Your task to perform on an android device: turn on location history Image 0: 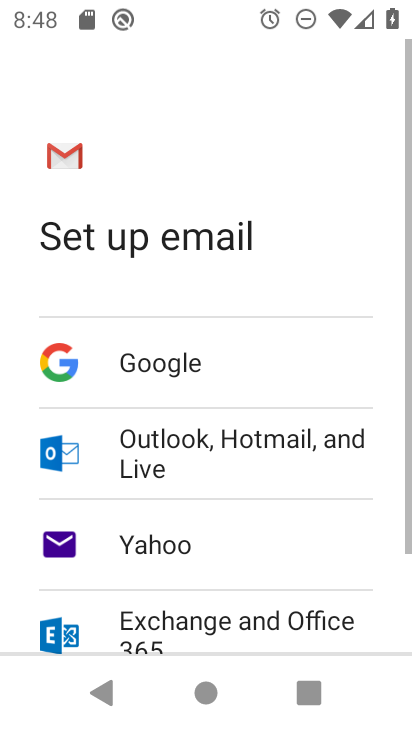
Step 0: press enter
Your task to perform on an android device: turn on location history Image 1: 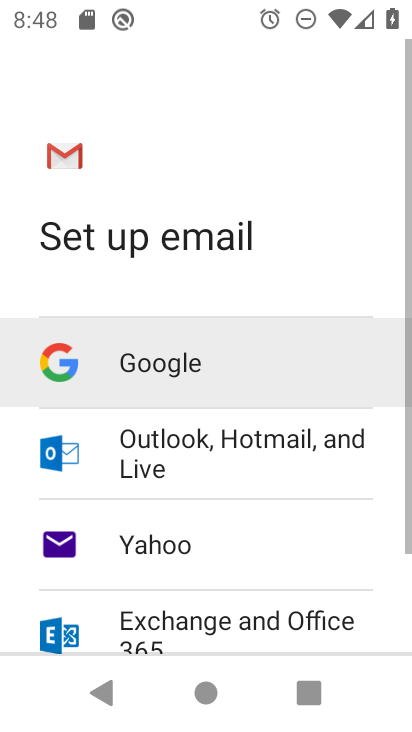
Step 1: press home button
Your task to perform on an android device: turn on location history Image 2: 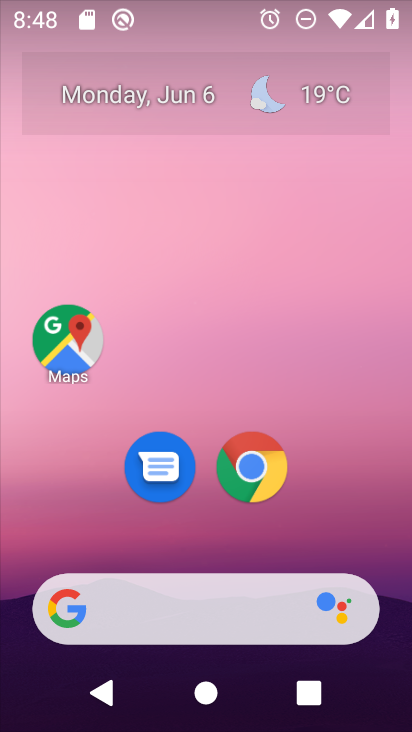
Step 2: drag from (352, 512) to (358, 115)
Your task to perform on an android device: turn on location history Image 3: 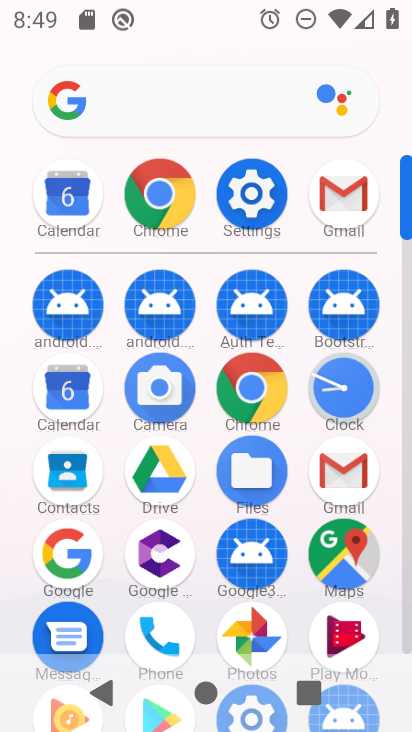
Step 3: click (257, 206)
Your task to perform on an android device: turn on location history Image 4: 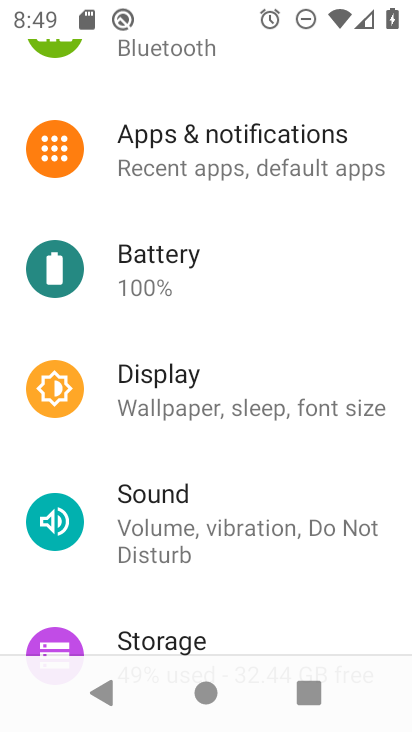
Step 4: drag from (353, 339) to (378, 431)
Your task to perform on an android device: turn on location history Image 5: 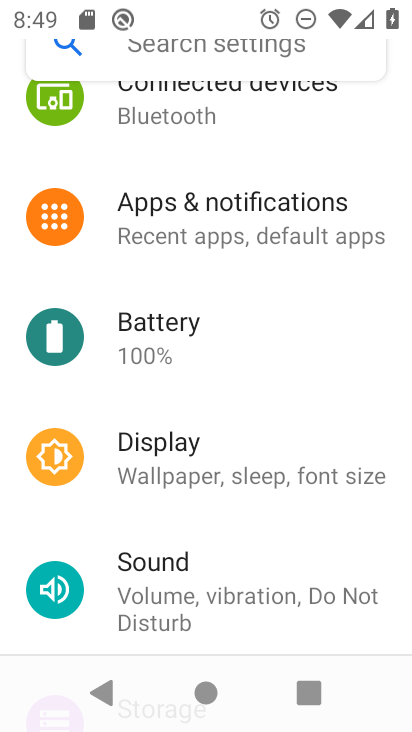
Step 5: drag from (366, 169) to (366, 335)
Your task to perform on an android device: turn on location history Image 6: 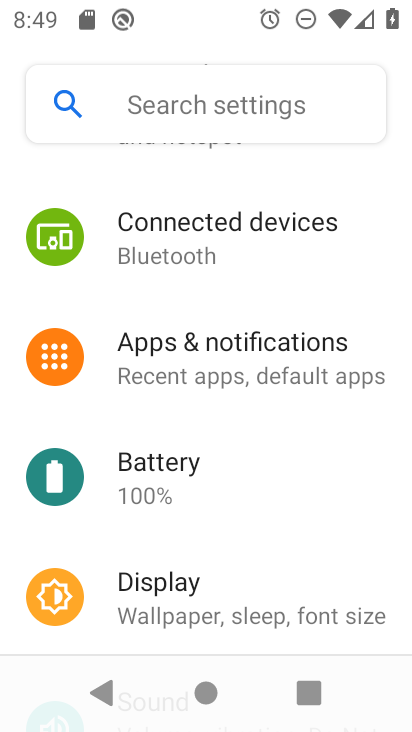
Step 6: drag from (367, 185) to (362, 354)
Your task to perform on an android device: turn on location history Image 7: 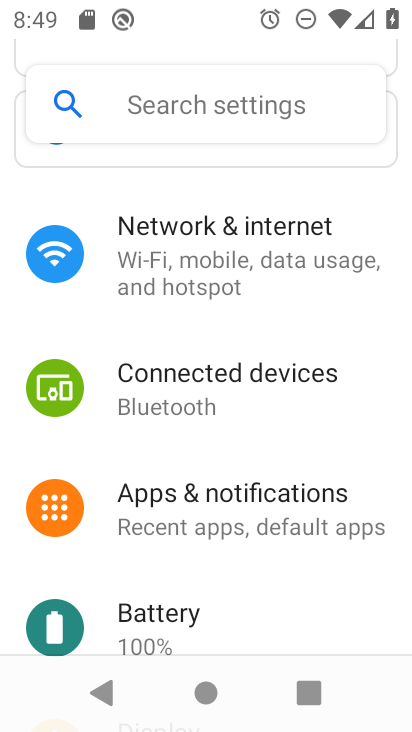
Step 7: drag from (362, 412) to (373, 286)
Your task to perform on an android device: turn on location history Image 8: 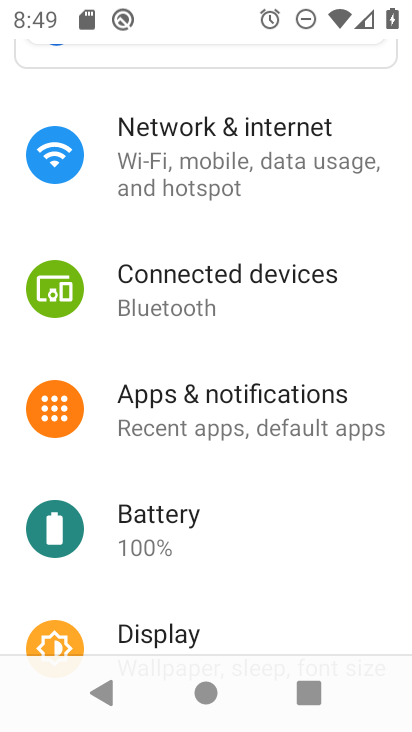
Step 8: drag from (353, 497) to (371, 341)
Your task to perform on an android device: turn on location history Image 9: 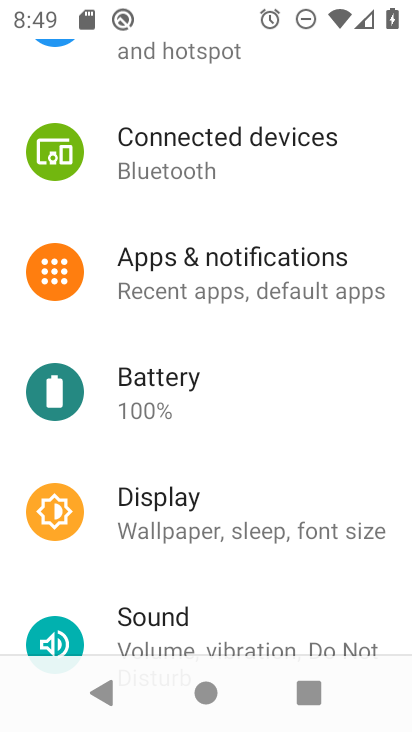
Step 9: drag from (361, 492) to (368, 348)
Your task to perform on an android device: turn on location history Image 10: 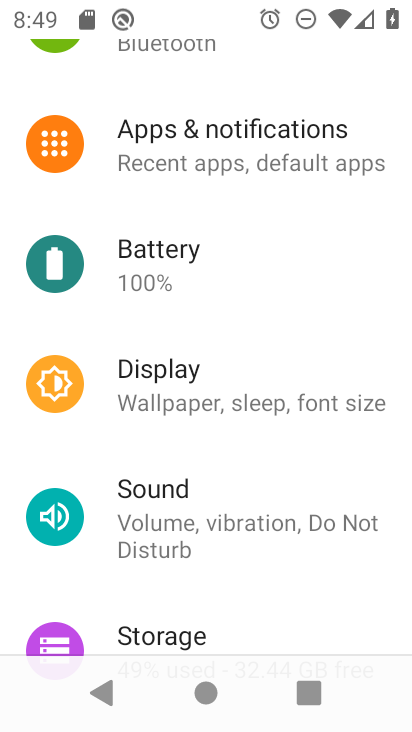
Step 10: drag from (355, 569) to (366, 409)
Your task to perform on an android device: turn on location history Image 11: 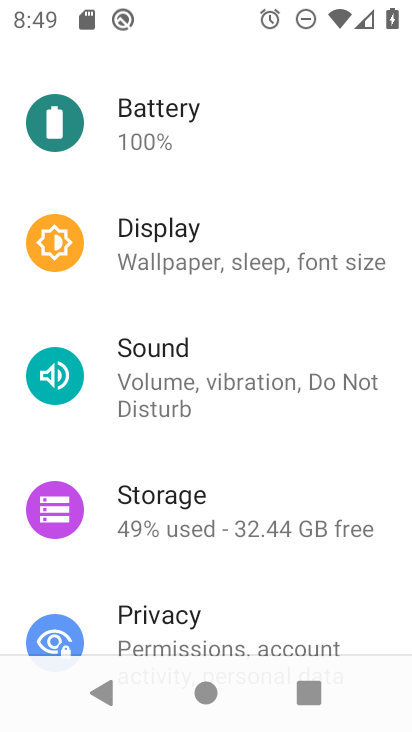
Step 11: drag from (357, 588) to (348, 283)
Your task to perform on an android device: turn on location history Image 12: 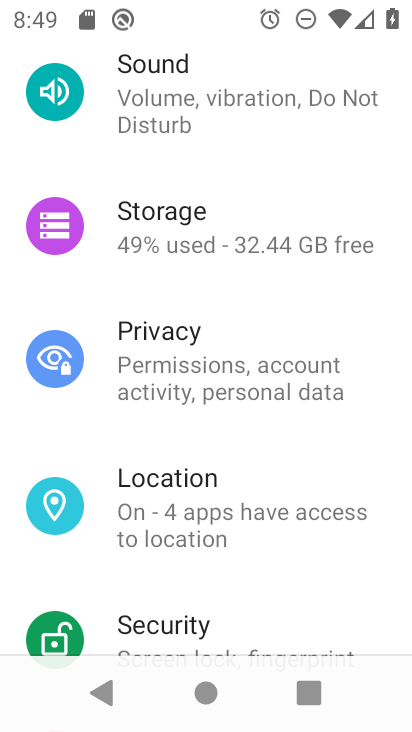
Step 12: click (278, 494)
Your task to perform on an android device: turn on location history Image 13: 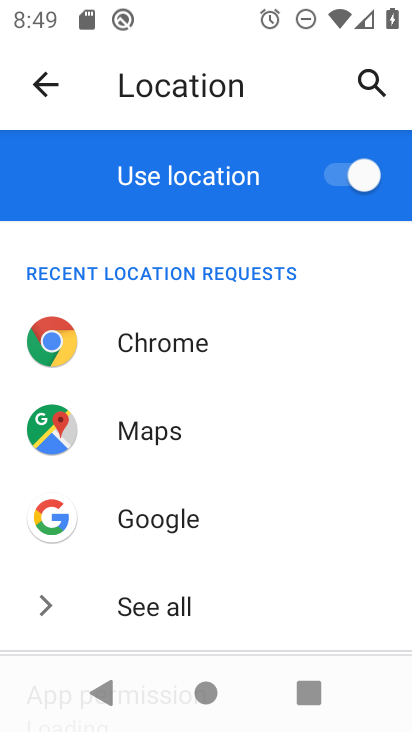
Step 13: drag from (293, 537) to (286, 388)
Your task to perform on an android device: turn on location history Image 14: 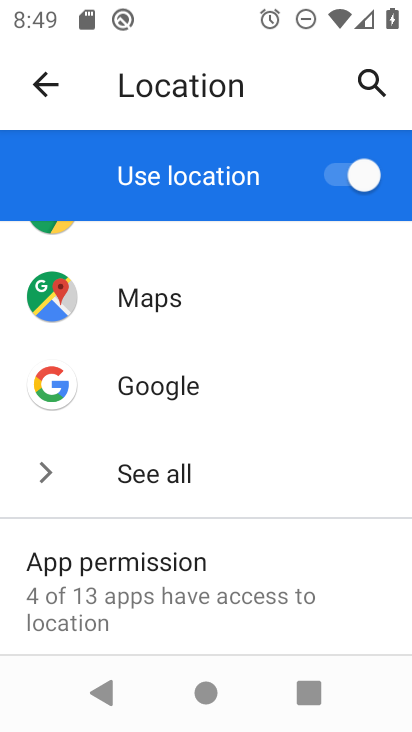
Step 14: drag from (327, 573) to (332, 357)
Your task to perform on an android device: turn on location history Image 15: 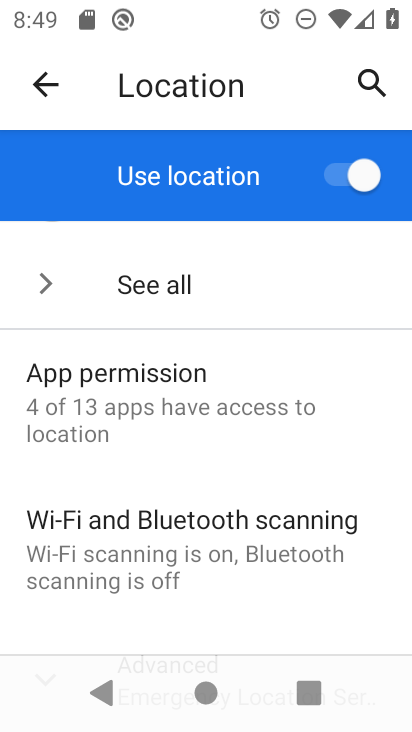
Step 15: drag from (350, 596) to (354, 351)
Your task to perform on an android device: turn on location history Image 16: 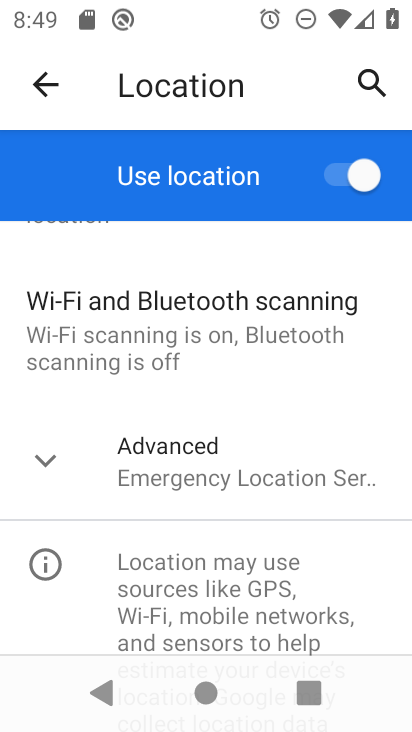
Step 16: click (310, 469)
Your task to perform on an android device: turn on location history Image 17: 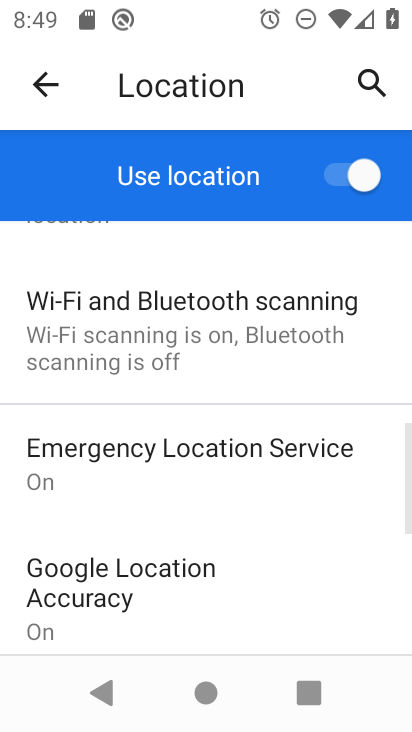
Step 17: drag from (309, 587) to (306, 389)
Your task to perform on an android device: turn on location history Image 18: 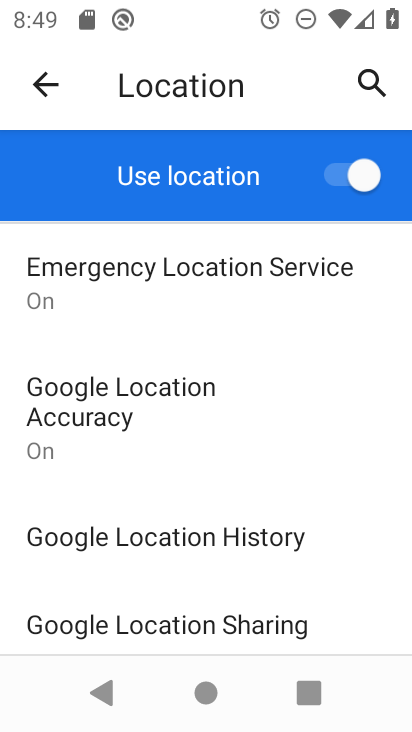
Step 18: drag from (309, 589) to (310, 423)
Your task to perform on an android device: turn on location history Image 19: 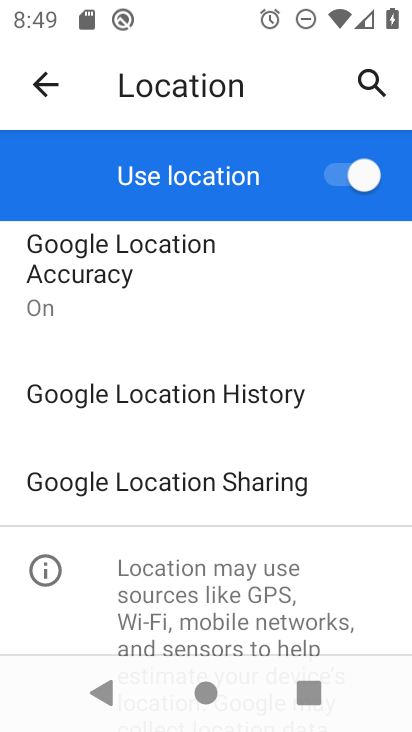
Step 19: click (237, 402)
Your task to perform on an android device: turn on location history Image 20: 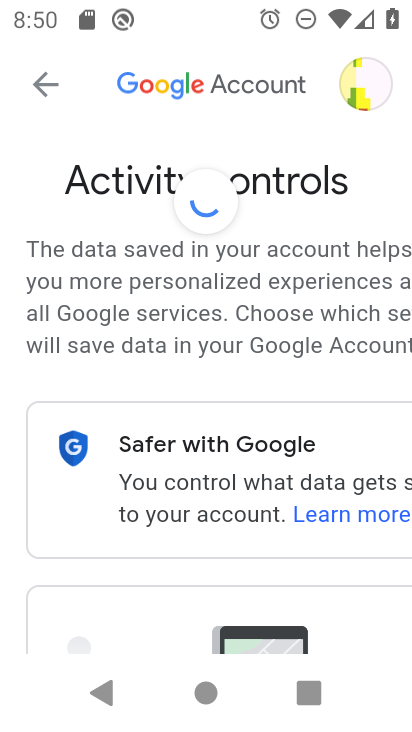
Step 20: task complete